Your task to perform on an android device: turn off notifications settings in the gmail app Image 0: 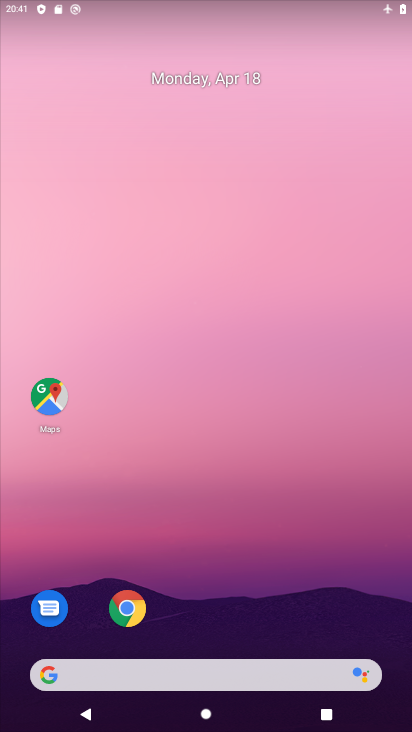
Step 0: drag from (216, 612) to (228, 140)
Your task to perform on an android device: turn off notifications settings in the gmail app Image 1: 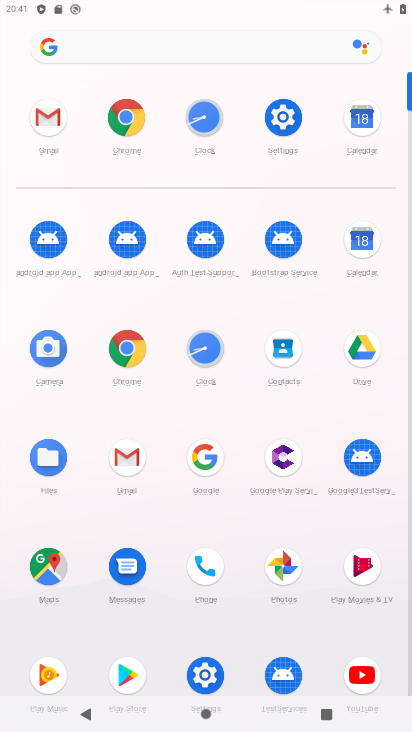
Step 1: click (131, 457)
Your task to perform on an android device: turn off notifications settings in the gmail app Image 2: 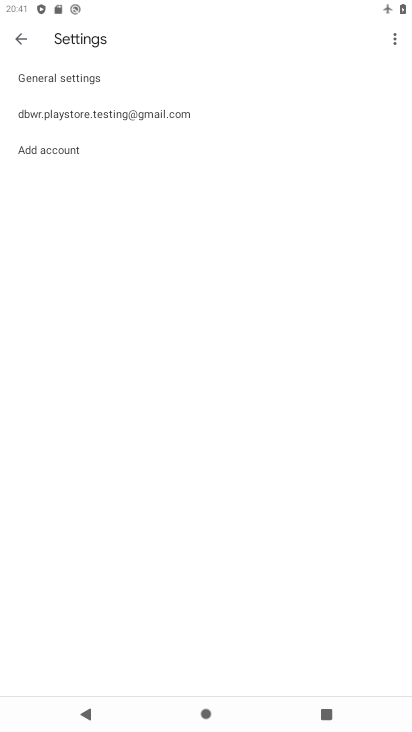
Step 2: click (135, 116)
Your task to perform on an android device: turn off notifications settings in the gmail app Image 3: 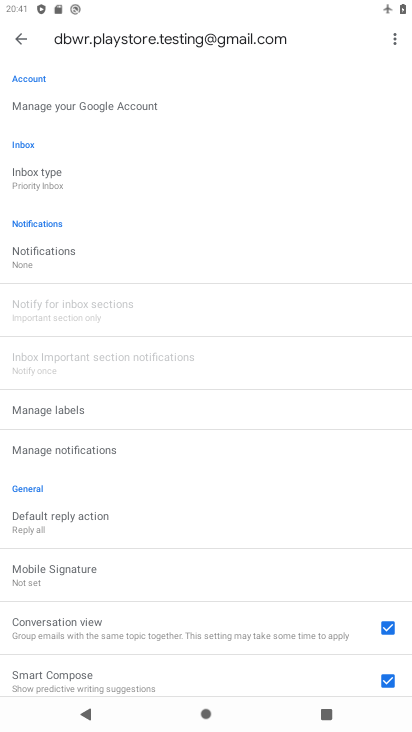
Step 3: click (45, 258)
Your task to perform on an android device: turn off notifications settings in the gmail app Image 4: 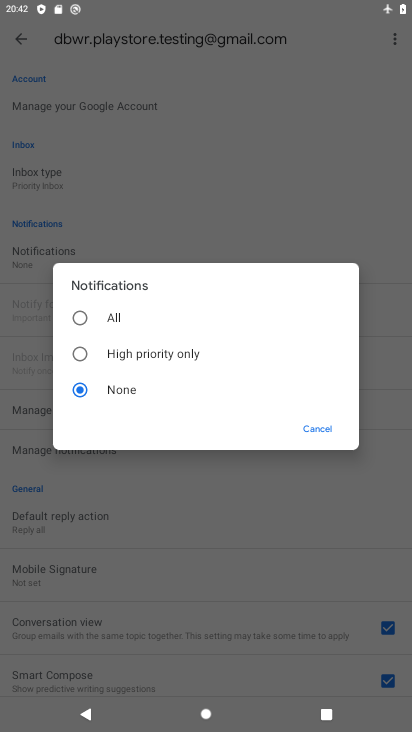
Step 4: task complete